Your task to perform on an android device: Open Chrome and go to the settings page Image 0: 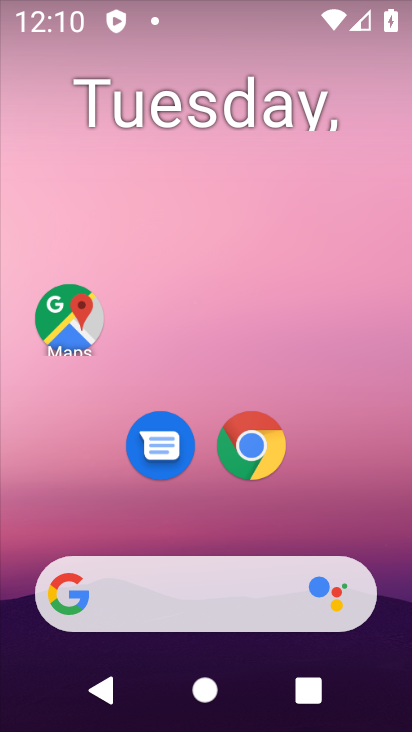
Step 0: drag from (365, 538) to (373, 155)
Your task to perform on an android device: Open Chrome and go to the settings page Image 1: 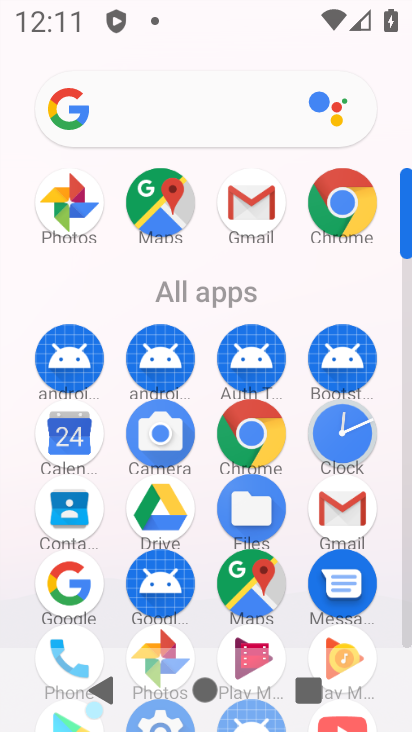
Step 1: click (279, 440)
Your task to perform on an android device: Open Chrome and go to the settings page Image 2: 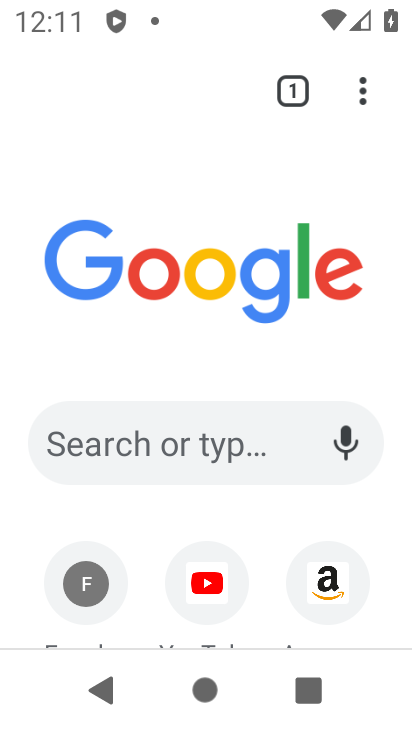
Step 2: click (364, 99)
Your task to perform on an android device: Open Chrome and go to the settings page Image 3: 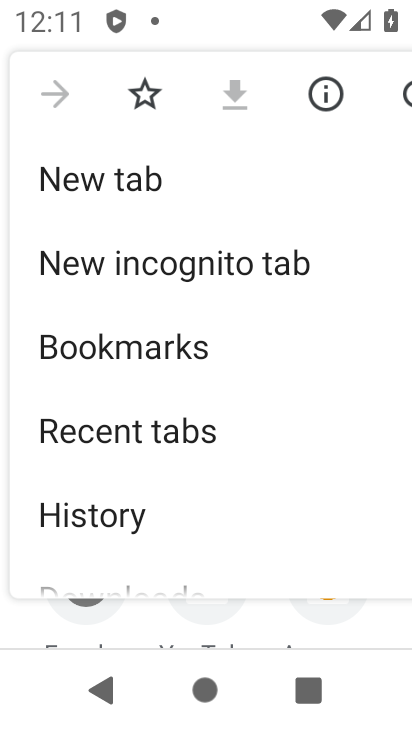
Step 3: drag from (327, 444) to (342, 360)
Your task to perform on an android device: Open Chrome and go to the settings page Image 4: 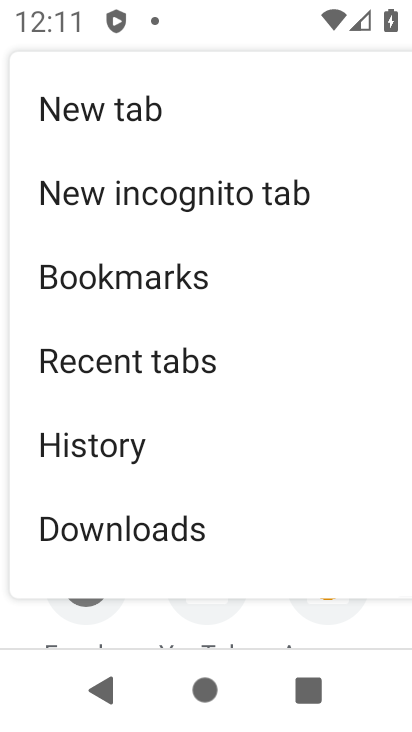
Step 4: drag from (346, 463) to (364, 387)
Your task to perform on an android device: Open Chrome and go to the settings page Image 5: 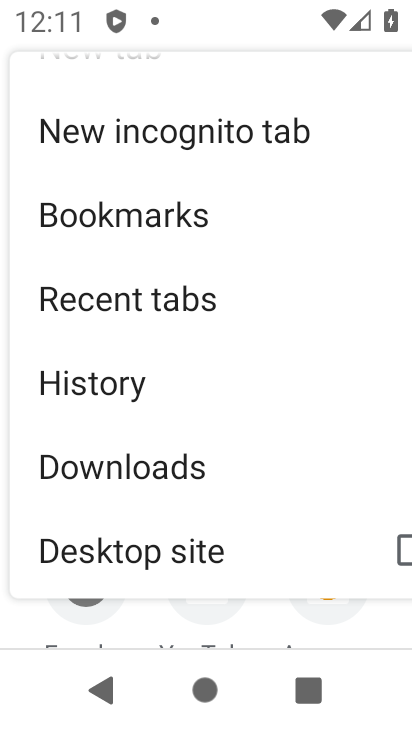
Step 5: drag from (351, 488) to (367, 405)
Your task to perform on an android device: Open Chrome and go to the settings page Image 6: 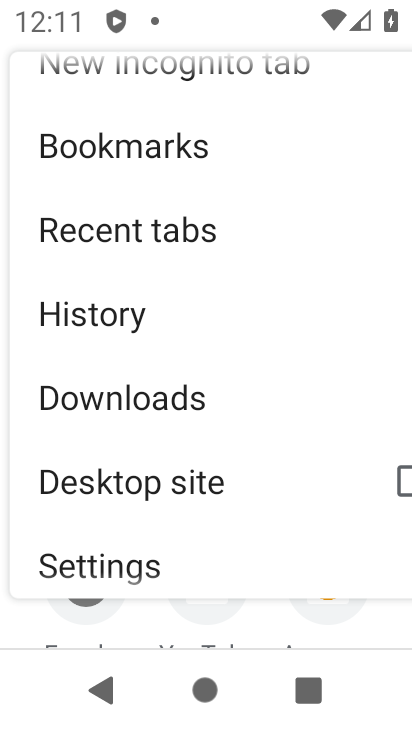
Step 6: drag from (338, 499) to (343, 428)
Your task to perform on an android device: Open Chrome and go to the settings page Image 7: 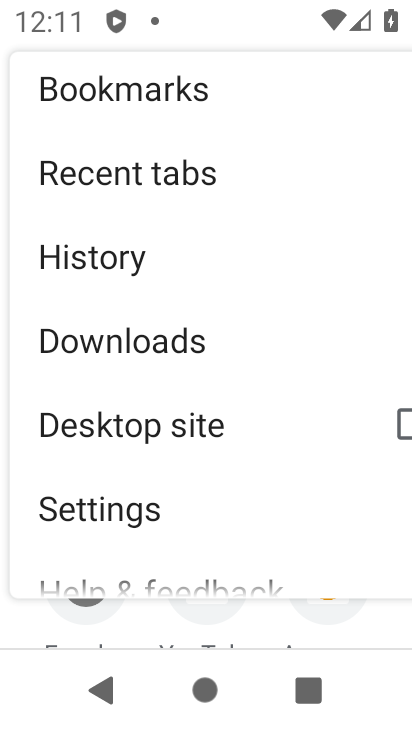
Step 7: drag from (331, 511) to (328, 412)
Your task to perform on an android device: Open Chrome and go to the settings page Image 8: 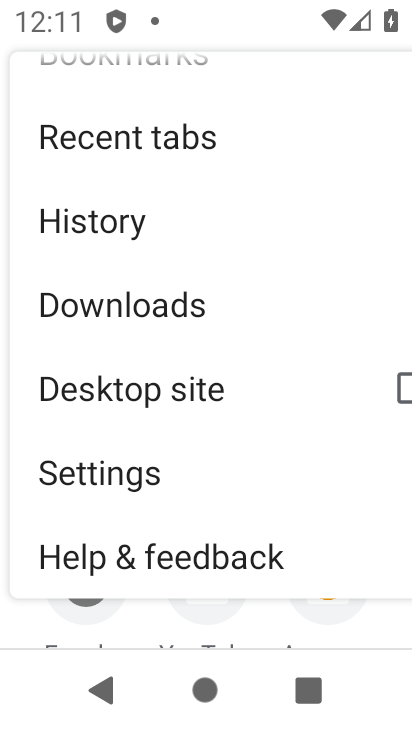
Step 8: click (156, 488)
Your task to perform on an android device: Open Chrome and go to the settings page Image 9: 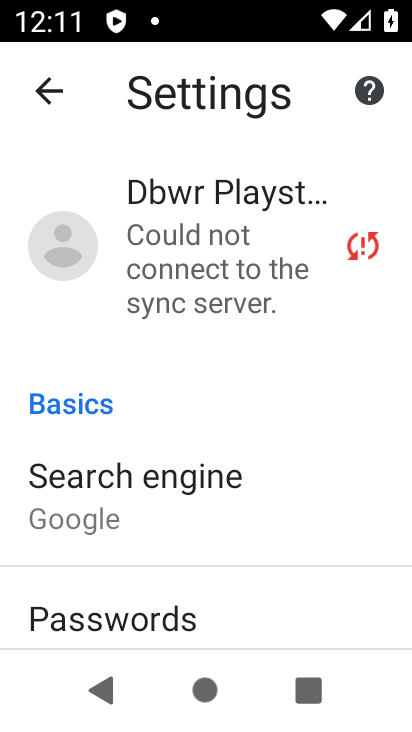
Step 9: task complete